Your task to perform on an android device: Go to notification settings Image 0: 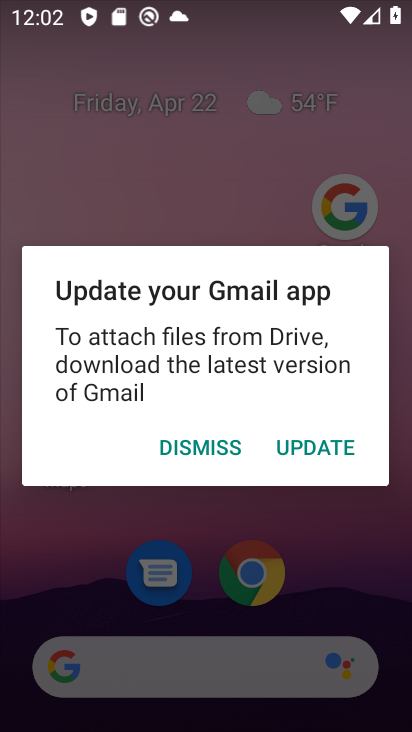
Step 0: press home button
Your task to perform on an android device: Go to notification settings Image 1: 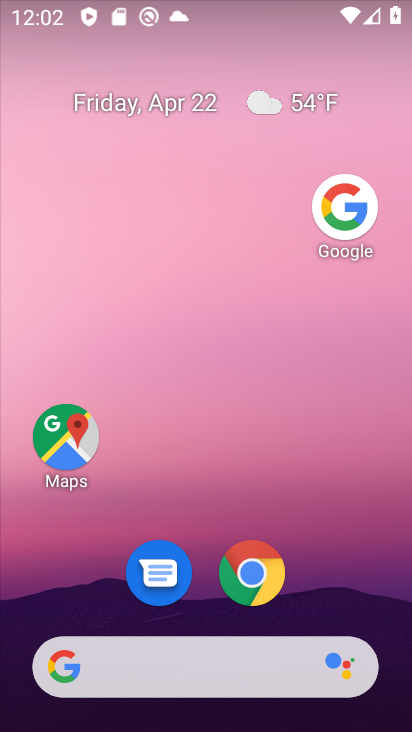
Step 1: drag from (208, 633) to (317, 116)
Your task to perform on an android device: Go to notification settings Image 2: 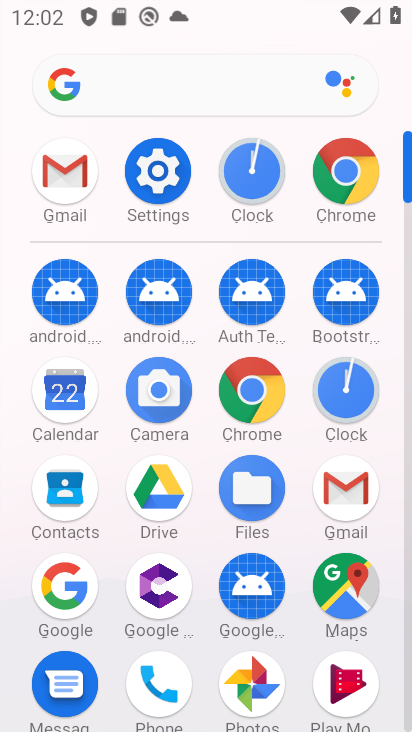
Step 2: click (167, 185)
Your task to perform on an android device: Go to notification settings Image 3: 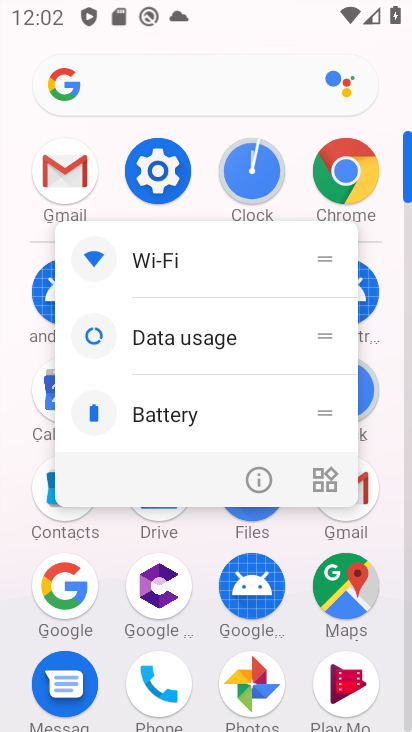
Step 3: click (160, 181)
Your task to perform on an android device: Go to notification settings Image 4: 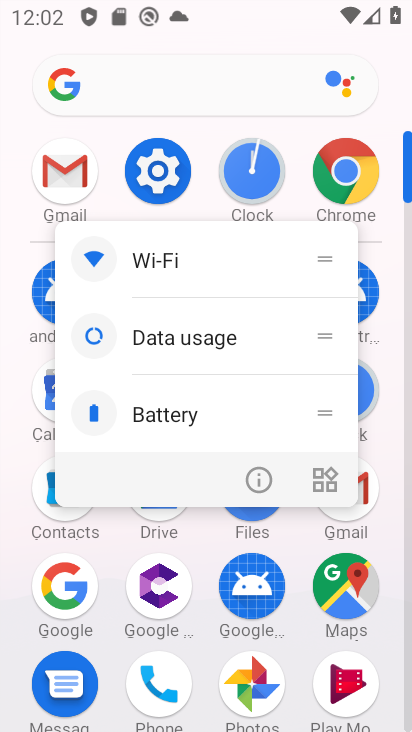
Step 4: click (156, 166)
Your task to perform on an android device: Go to notification settings Image 5: 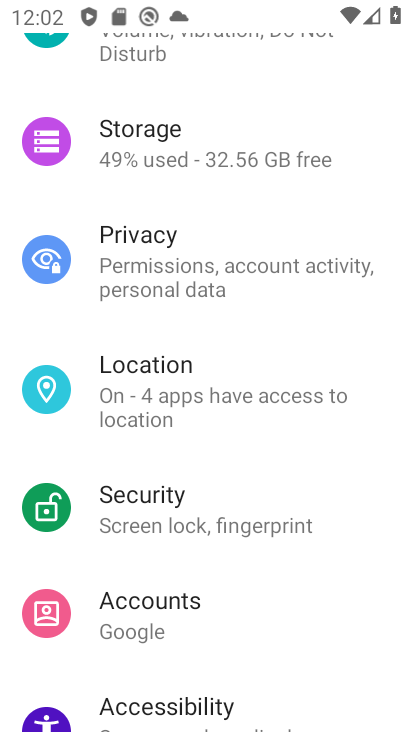
Step 5: drag from (309, 112) to (283, 527)
Your task to perform on an android device: Go to notification settings Image 6: 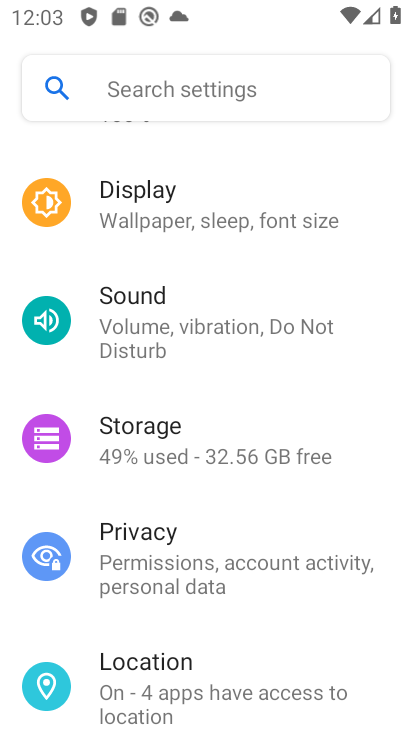
Step 6: drag from (264, 167) to (214, 576)
Your task to perform on an android device: Go to notification settings Image 7: 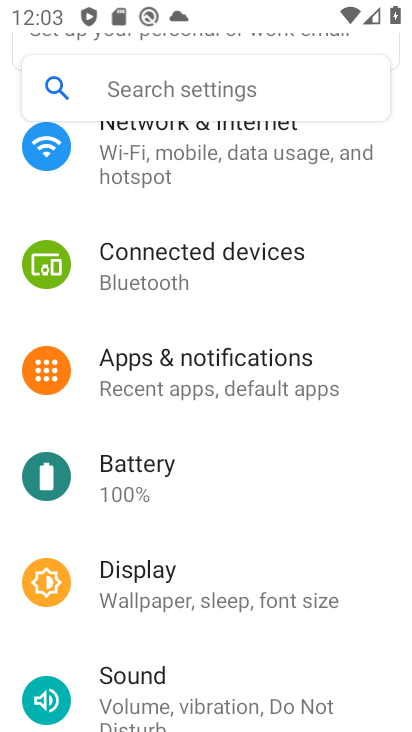
Step 7: click (228, 360)
Your task to perform on an android device: Go to notification settings Image 8: 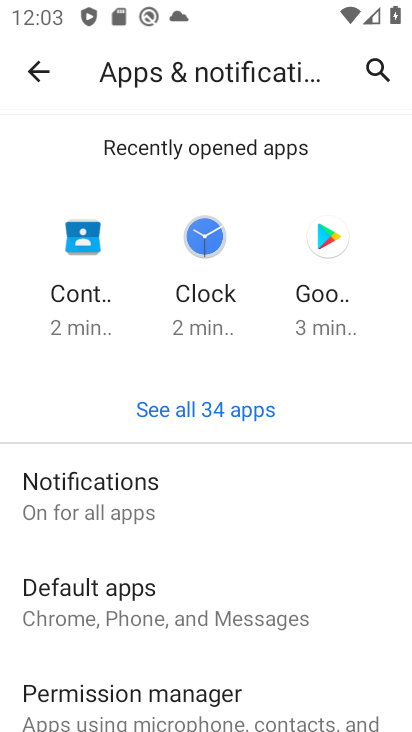
Step 8: click (117, 502)
Your task to perform on an android device: Go to notification settings Image 9: 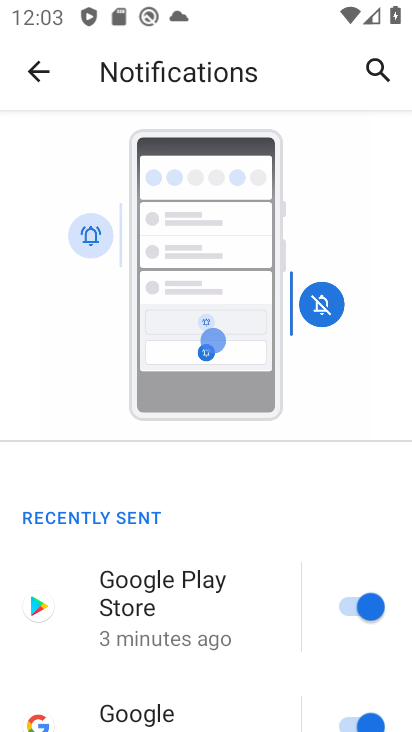
Step 9: task complete